Your task to perform on an android device: turn off data saver in the chrome app Image 0: 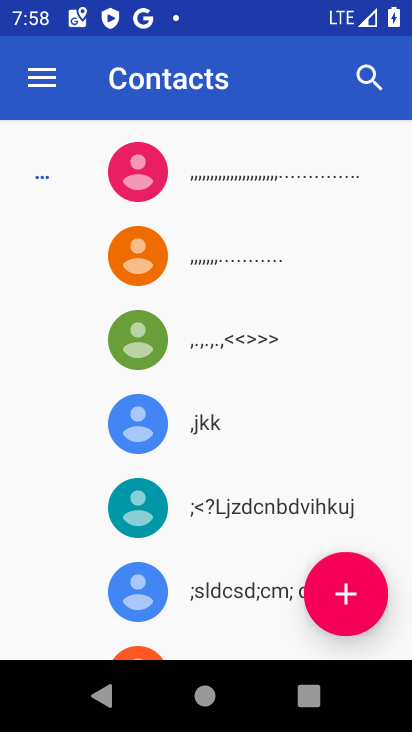
Step 0: press back button
Your task to perform on an android device: turn off data saver in the chrome app Image 1: 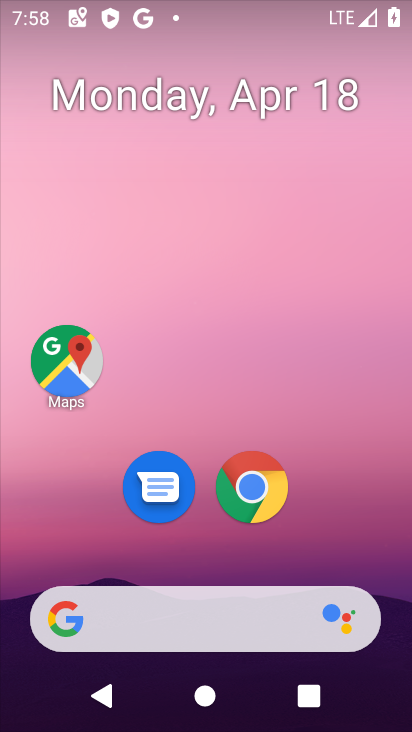
Step 1: drag from (207, 722) to (230, 126)
Your task to perform on an android device: turn off data saver in the chrome app Image 2: 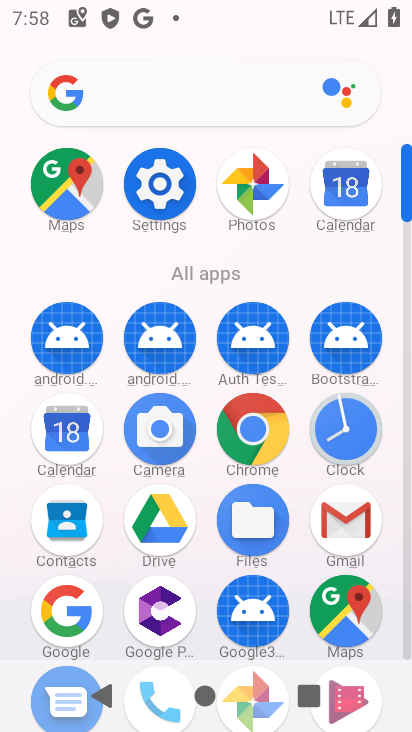
Step 2: click (253, 427)
Your task to perform on an android device: turn off data saver in the chrome app Image 3: 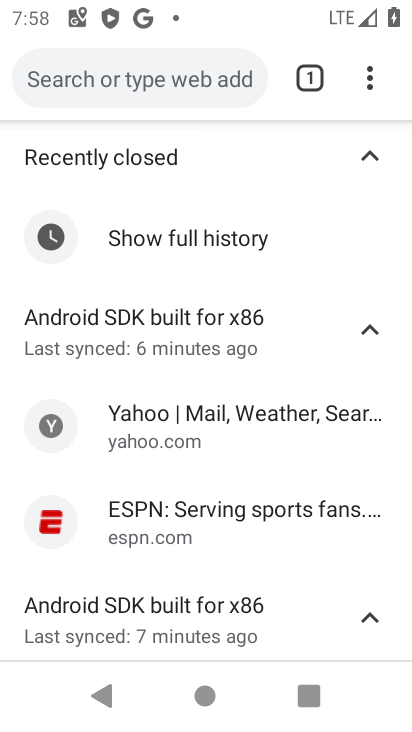
Step 3: click (371, 76)
Your task to perform on an android device: turn off data saver in the chrome app Image 4: 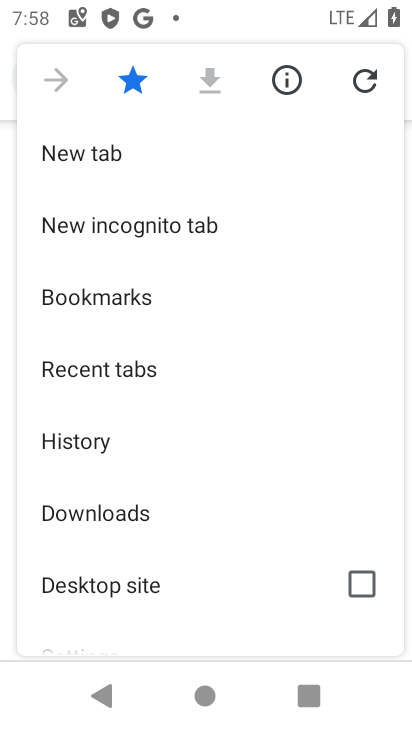
Step 4: drag from (204, 596) to (219, 278)
Your task to perform on an android device: turn off data saver in the chrome app Image 5: 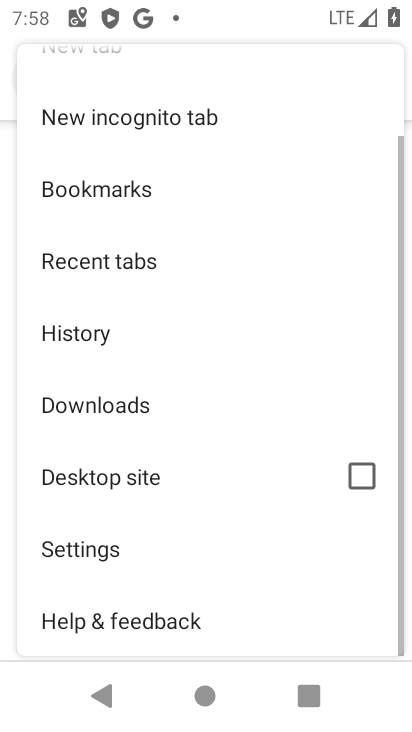
Step 5: click (88, 545)
Your task to perform on an android device: turn off data saver in the chrome app Image 6: 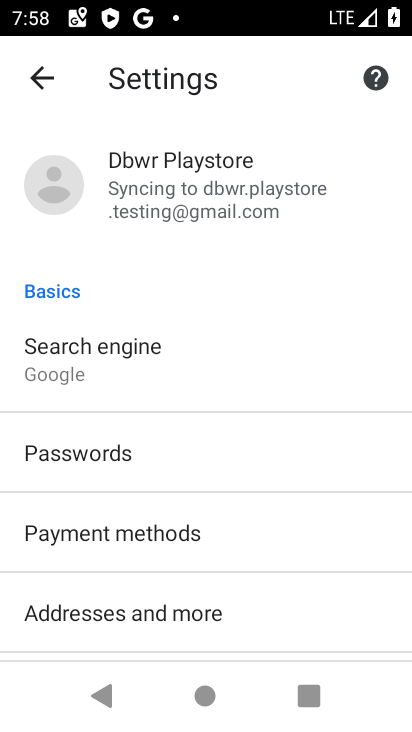
Step 6: drag from (171, 629) to (206, 342)
Your task to perform on an android device: turn off data saver in the chrome app Image 7: 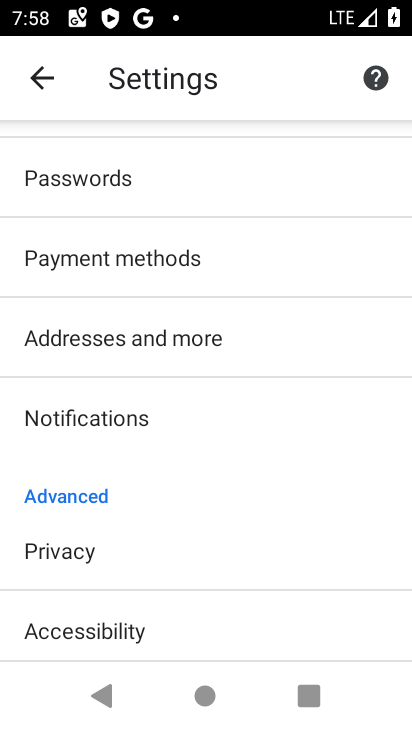
Step 7: drag from (155, 627) to (200, 356)
Your task to perform on an android device: turn off data saver in the chrome app Image 8: 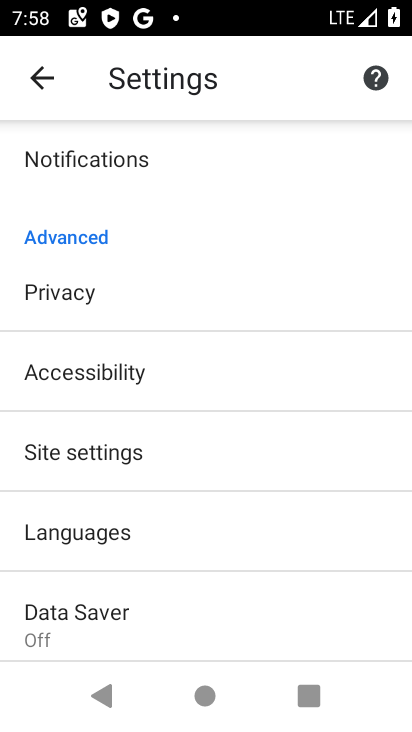
Step 8: click (89, 601)
Your task to perform on an android device: turn off data saver in the chrome app Image 9: 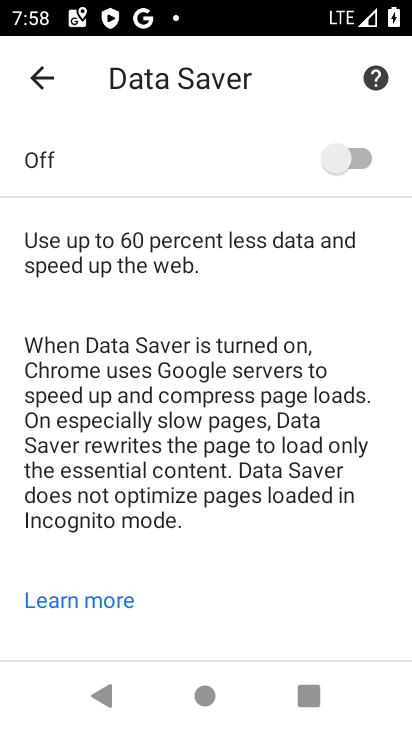
Step 9: task complete